Your task to perform on an android device: Go to accessibility settings Image 0: 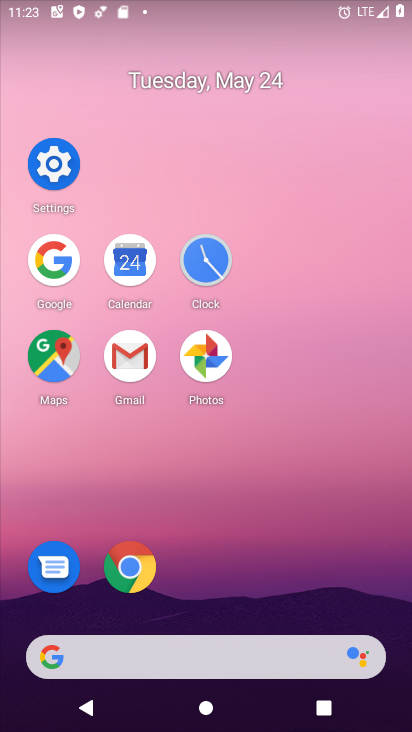
Step 0: click (63, 158)
Your task to perform on an android device: Go to accessibility settings Image 1: 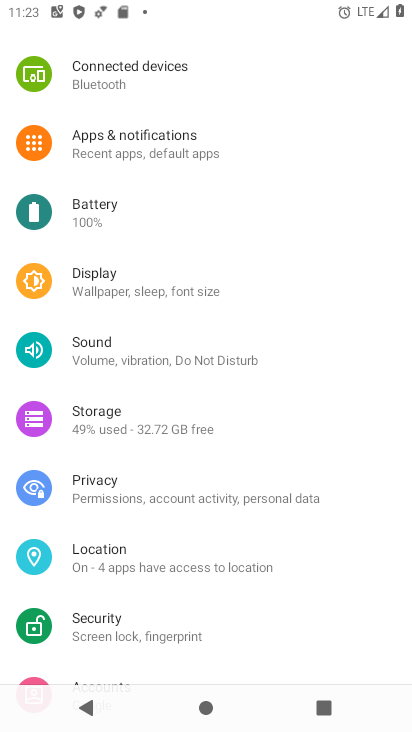
Step 1: drag from (189, 538) to (300, 184)
Your task to perform on an android device: Go to accessibility settings Image 2: 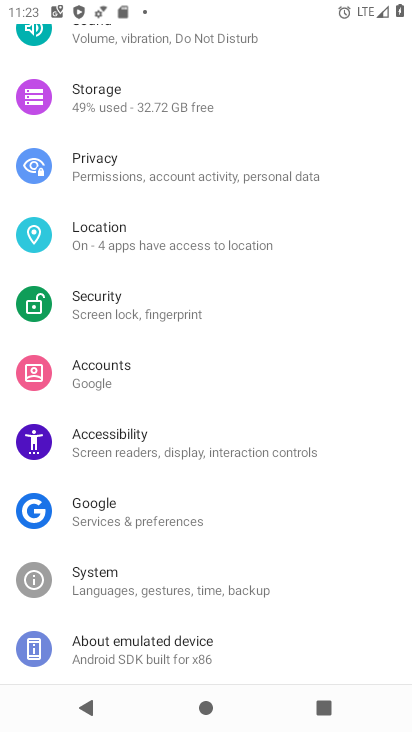
Step 2: click (159, 428)
Your task to perform on an android device: Go to accessibility settings Image 3: 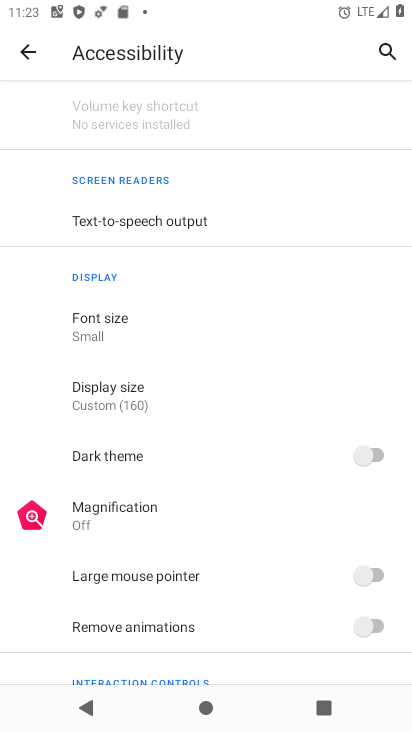
Step 3: task complete